Your task to perform on an android device: set default search engine in the chrome app Image 0: 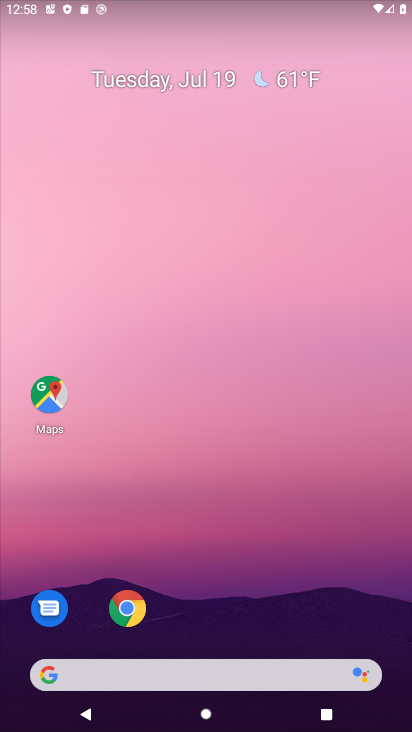
Step 0: drag from (294, 566) to (326, 104)
Your task to perform on an android device: set default search engine in the chrome app Image 1: 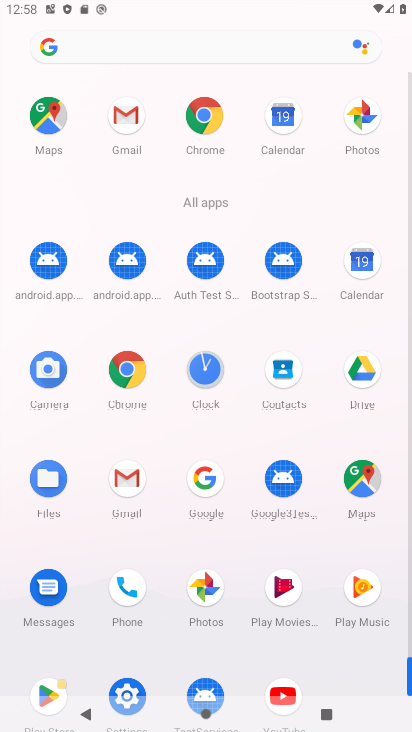
Step 1: click (210, 124)
Your task to perform on an android device: set default search engine in the chrome app Image 2: 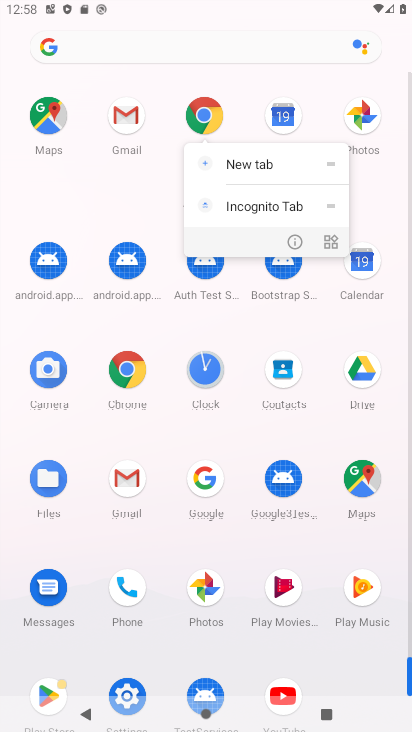
Step 2: click (210, 125)
Your task to perform on an android device: set default search engine in the chrome app Image 3: 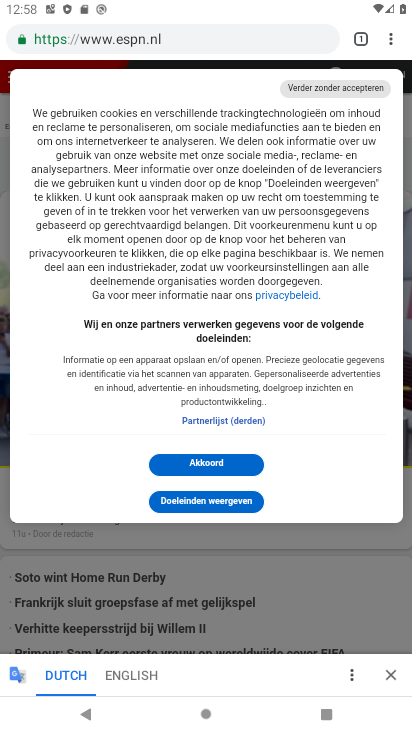
Step 3: drag from (380, 43) to (246, 463)
Your task to perform on an android device: set default search engine in the chrome app Image 4: 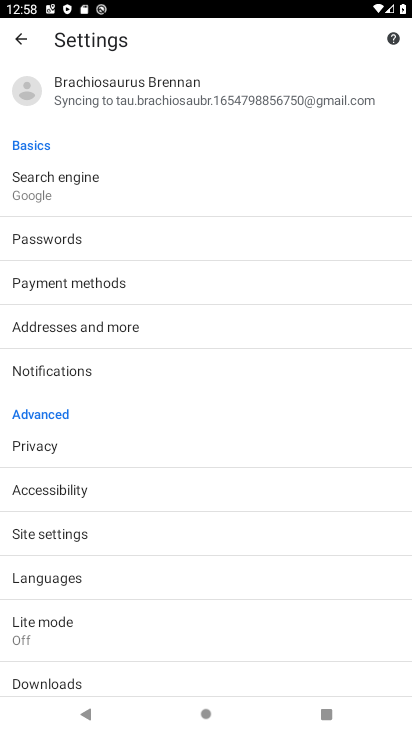
Step 4: click (50, 190)
Your task to perform on an android device: set default search engine in the chrome app Image 5: 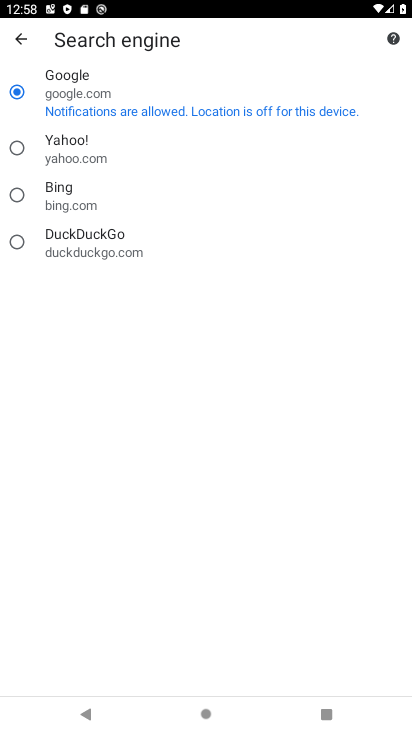
Step 5: task complete